Your task to perform on an android device: turn on showing notifications on the lock screen Image 0: 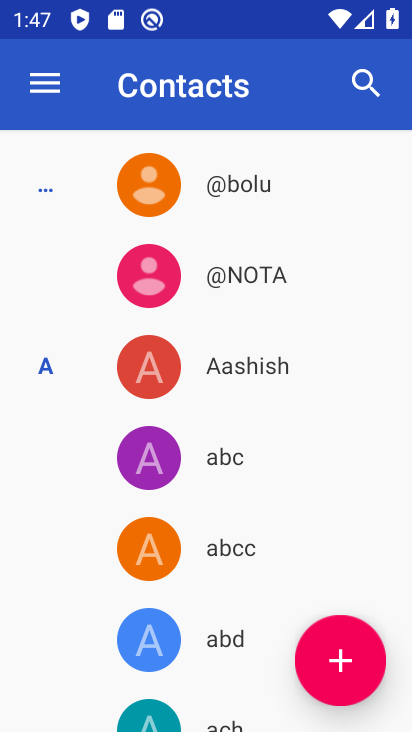
Step 0: press back button
Your task to perform on an android device: turn on showing notifications on the lock screen Image 1: 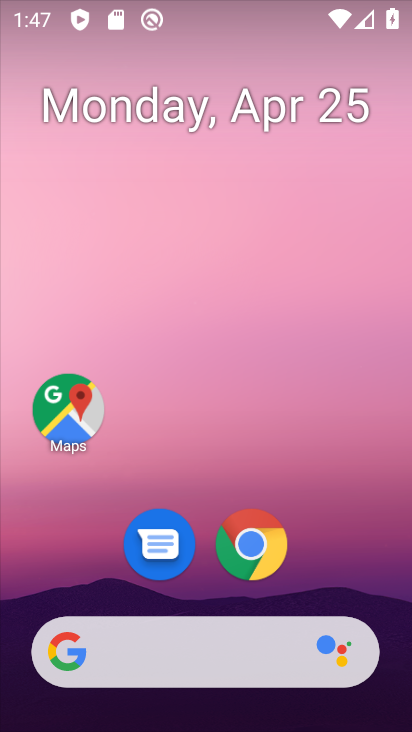
Step 1: drag from (181, 525) to (249, 140)
Your task to perform on an android device: turn on showing notifications on the lock screen Image 2: 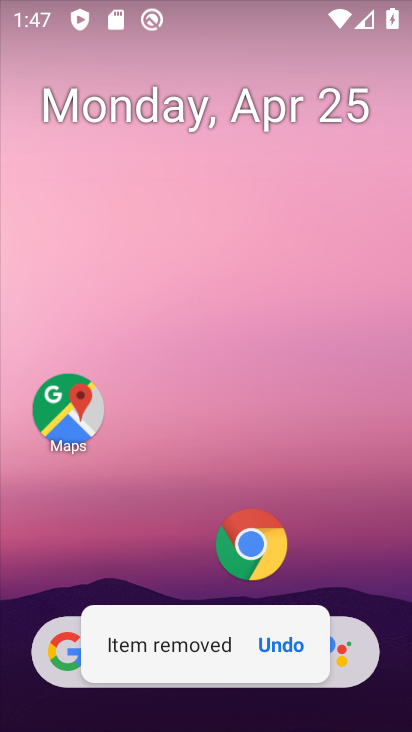
Step 2: drag from (57, 616) to (319, 22)
Your task to perform on an android device: turn on showing notifications on the lock screen Image 3: 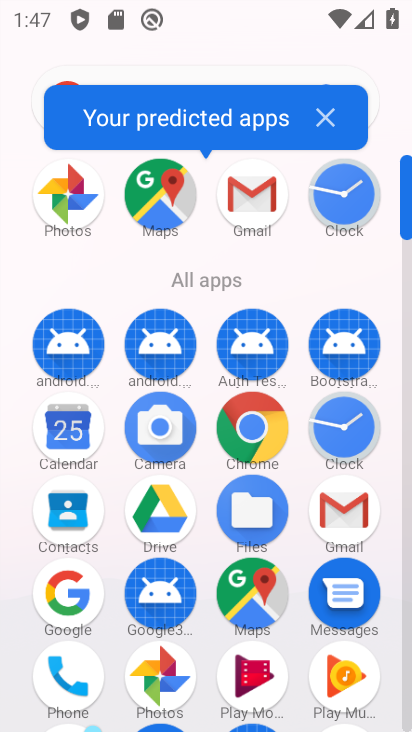
Step 3: drag from (130, 630) to (233, 445)
Your task to perform on an android device: turn on showing notifications on the lock screen Image 4: 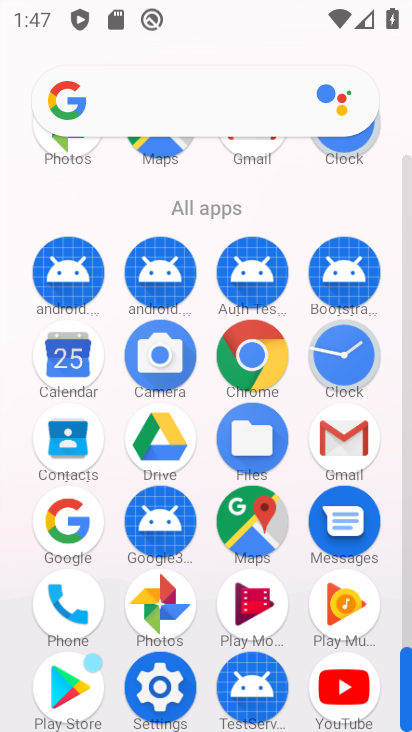
Step 4: click (156, 686)
Your task to perform on an android device: turn on showing notifications on the lock screen Image 5: 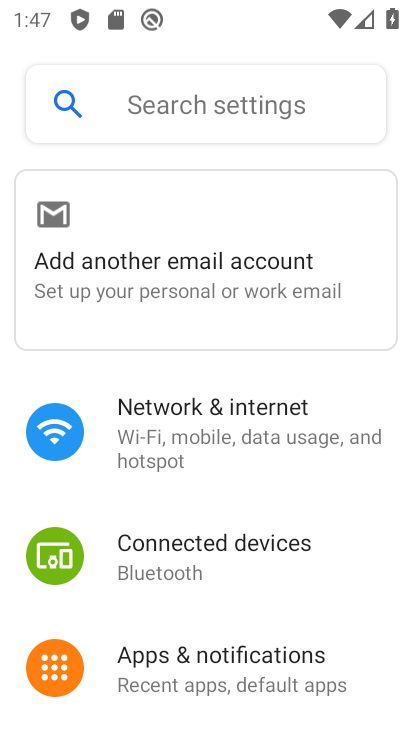
Step 5: drag from (137, 640) to (269, 323)
Your task to perform on an android device: turn on showing notifications on the lock screen Image 6: 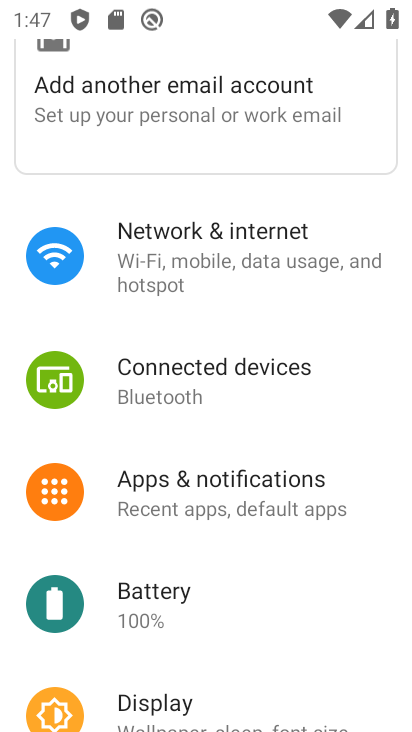
Step 6: click (234, 520)
Your task to perform on an android device: turn on showing notifications on the lock screen Image 7: 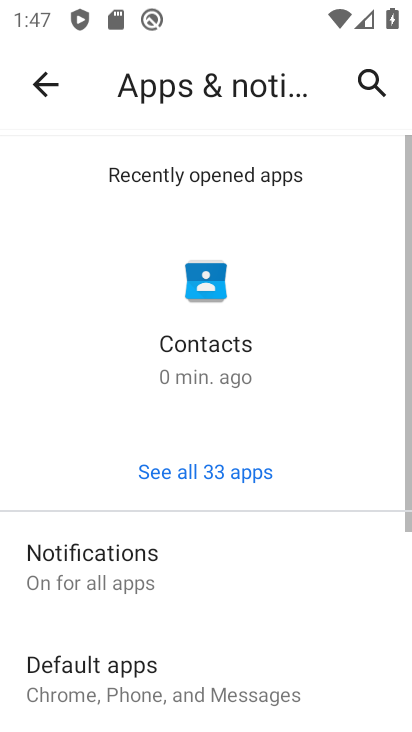
Step 7: click (126, 590)
Your task to perform on an android device: turn on showing notifications on the lock screen Image 8: 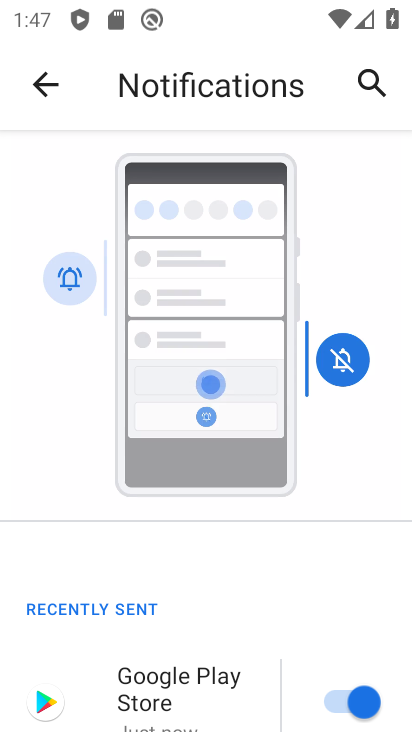
Step 8: drag from (175, 617) to (393, 47)
Your task to perform on an android device: turn on showing notifications on the lock screen Image 9: 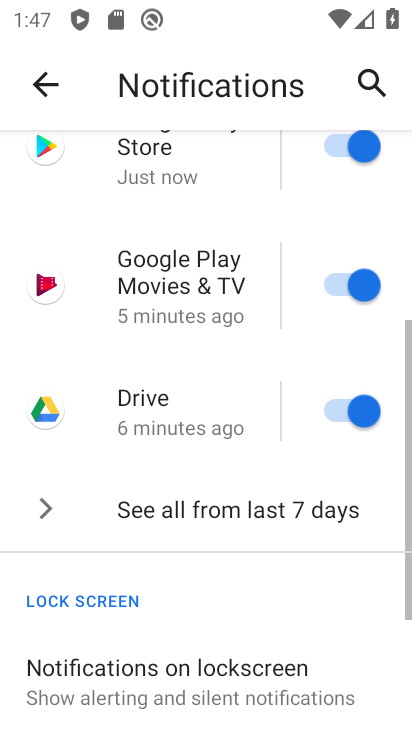
Step 9: drag from (162, 621) to (269, 370)
Your task to perform on an android device: turn on showing notifications on the lock screen Image 10: 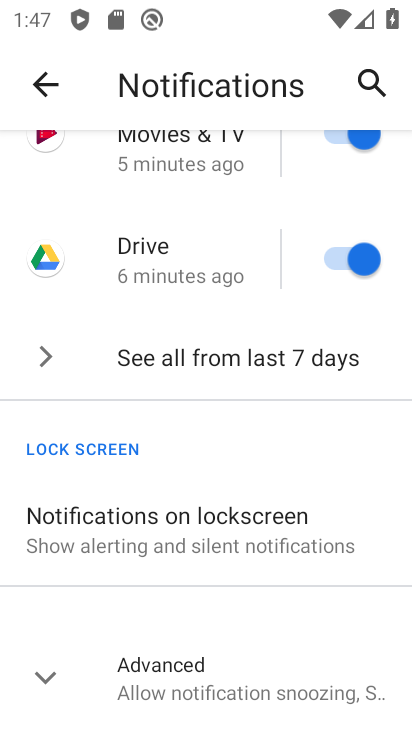
Step 10: click (232, 574)
Your task to perform on an android device: turn on showing notifications on the lock screen Image 11: 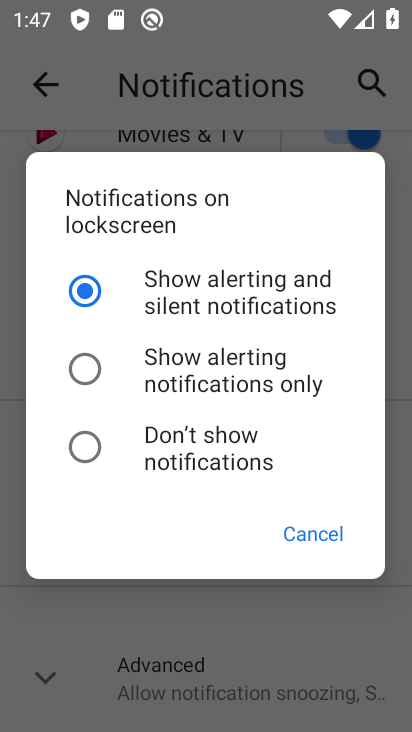
Step 11: task complete